Your task to perform on an android device: Go to eBay Image 0: 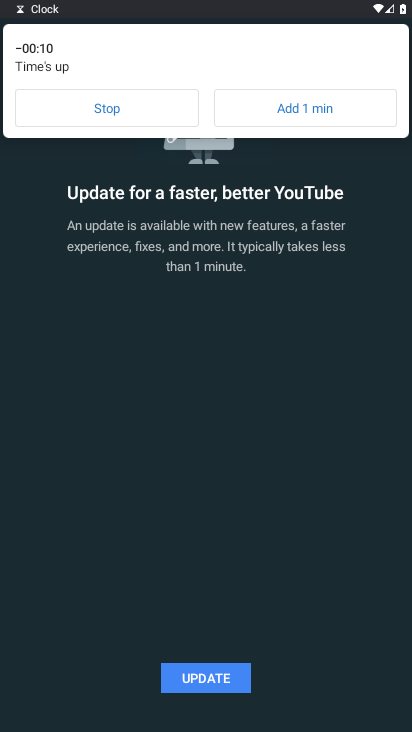
Step 0: press home button
Your task to perform on an android device: Go to eBay Image 1: 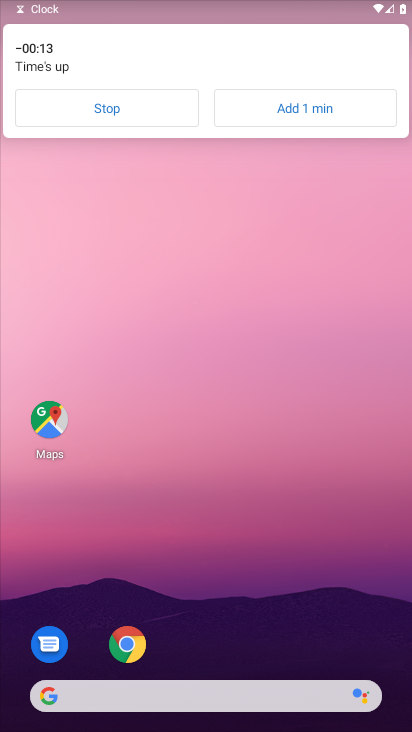
Step 1: click (136, 103)
Your task to perform on an android device: Go to eBay Image 2: 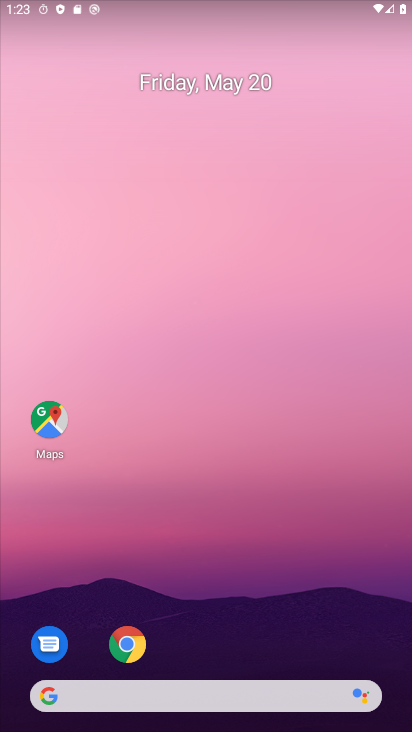
Step 2: click (186, 698)
Your task to perform on an android device: Go to eBay Image 3: 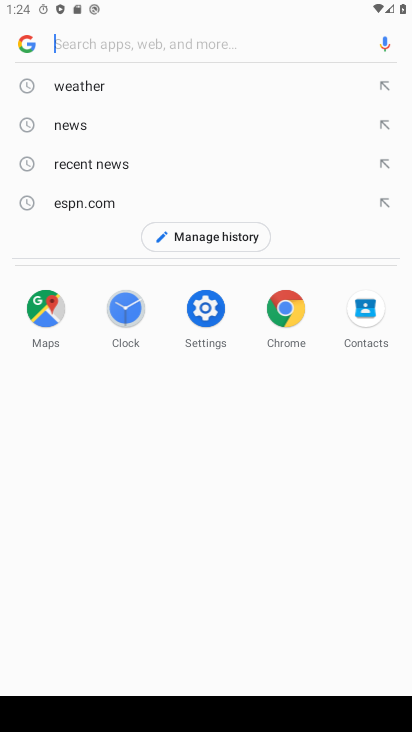
Step 3: type "ebay"
Your task to perform on an android device: Go to eBay Image 4: 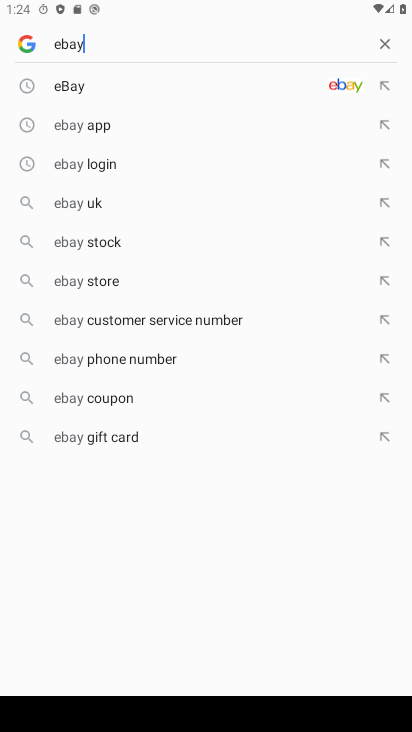
Step 4: click (325, 86)
Your task to perform on an android device: Go to eBay Image 5: 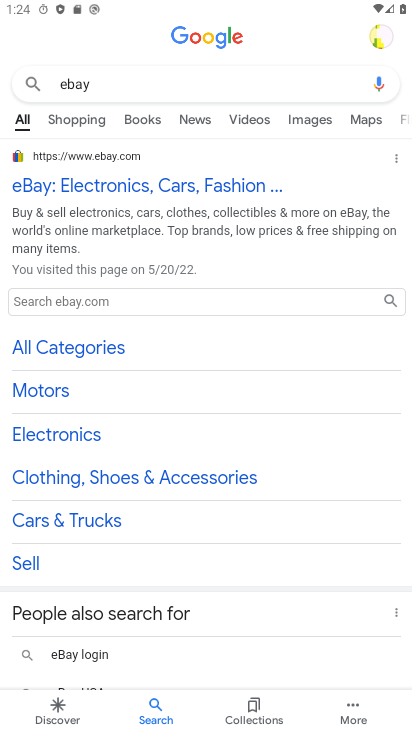
Step 5: click (80, 187)
Your task to perform on an android device: Go to eBay Image 6: 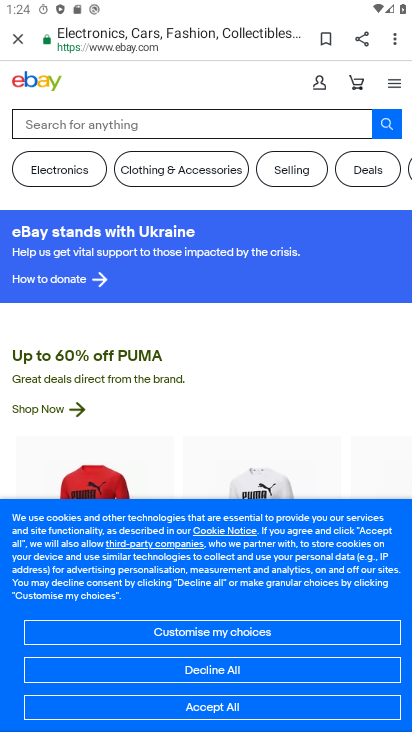
Step 6: task complete